Your task to perform on an android device: Open settings Image 0: 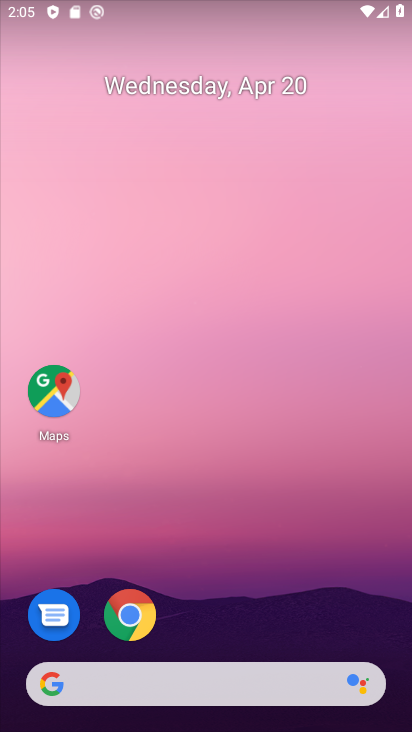
Step 0: drag from (243, 609) to (297, 9)
Your task to perform on an android device: Open settings Image 1: 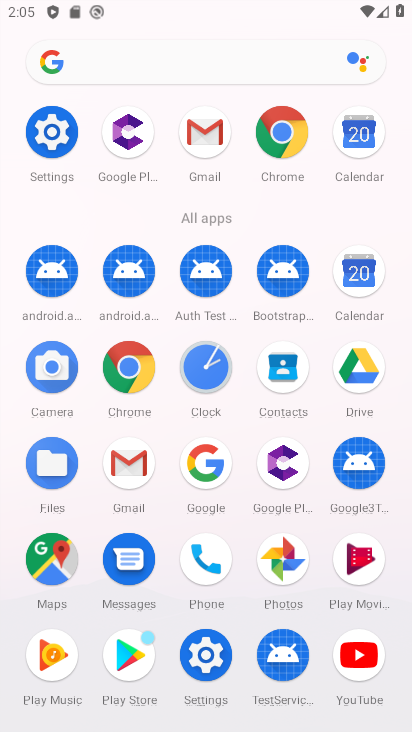
Step 1: click (54, 126)
Your task to perform on an android device: Open settings Image 2: 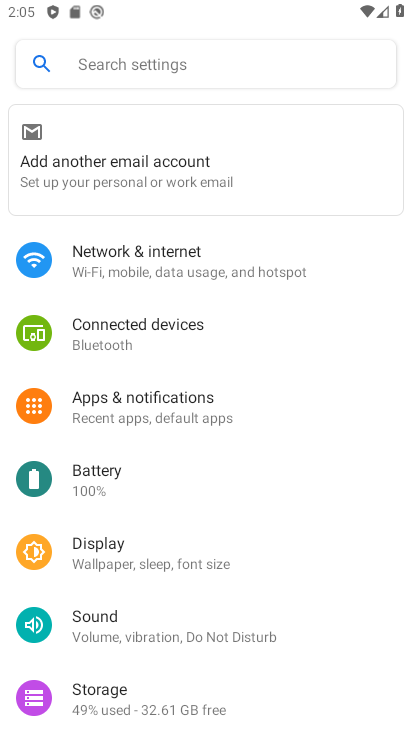
Step 2: task complete